Your task to perform on an android device: Look up the best rated pressure washer on Home Depot. Image 0: 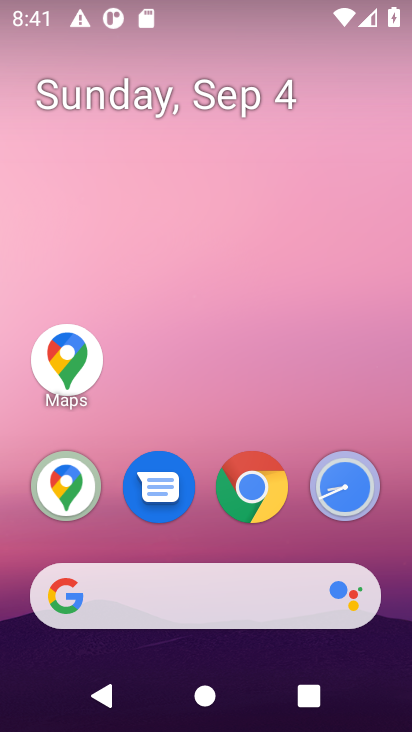
Step 0: task complete